Your task to perform on an android device: open device folders in google photos Image 0: 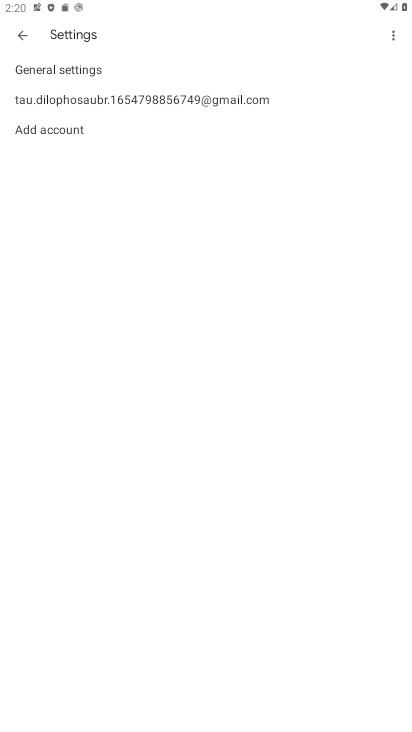
Step 0: press home button
Your task to perform on an android device: open device folders in google photos Image 1: 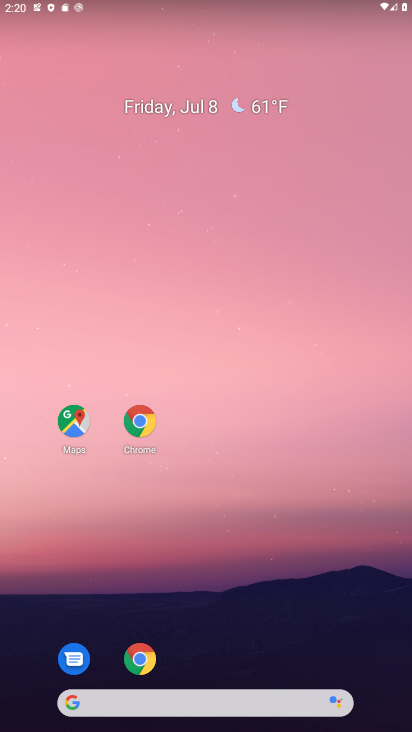
Step 1: drag from (221, 691) to (200, 84)
Your task to perform on an android device: open device folders in google photos Image 2: 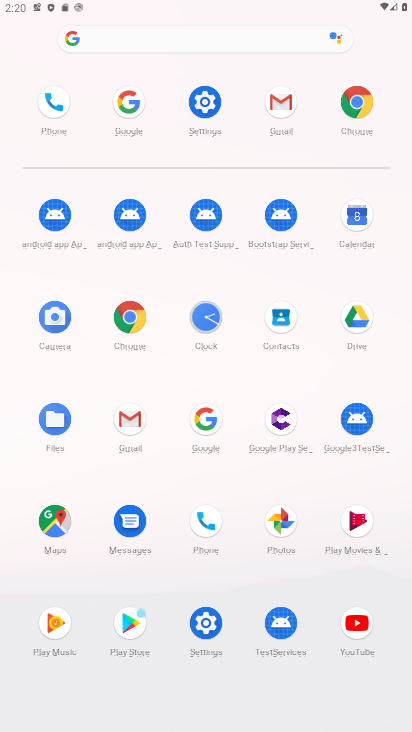
Step 2: click (263, 527)
Your task to perform on an android device: open device folders in google photos Image 3: 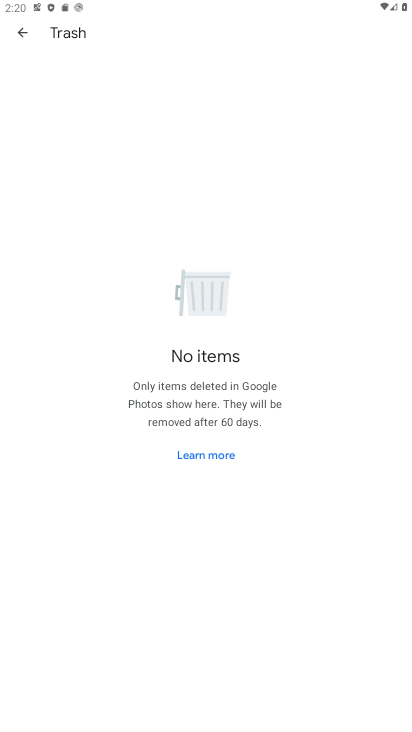
Step 3: click (34, 37)
Your task to perform on an android device: open device folders in google photos Image 4: 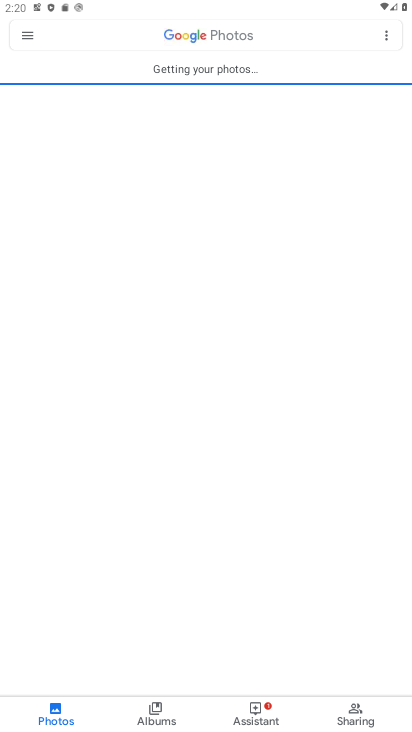
Step 4: click (33, 36)
Your task to perform on an android device: open device folders in google photos Image 5: 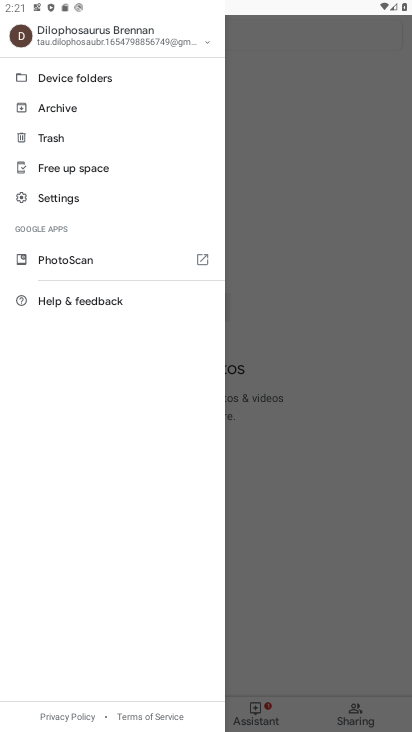
Step 5: click (56, 65)
Your task to perform on an android device: open device folders in google photos Image 6: 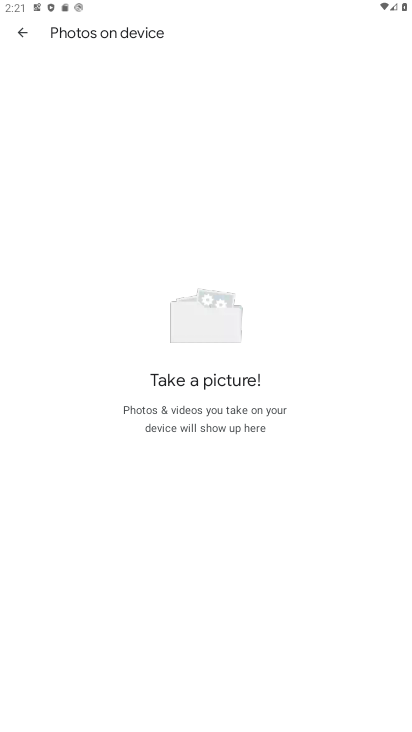
Step 6: task complete